Your task to perform on an android device: change keyboard looks Image 0: 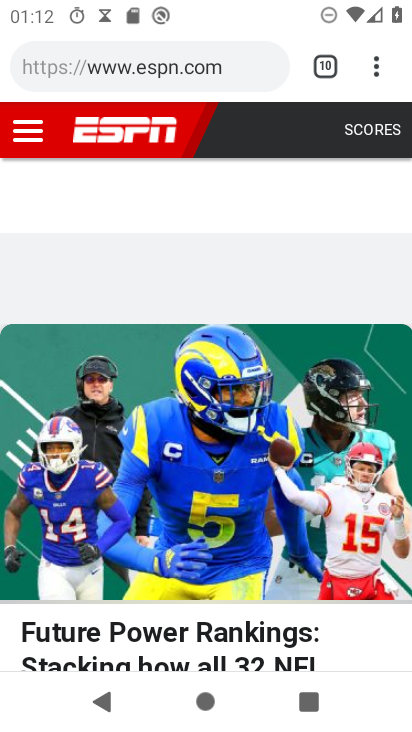
Step 0: press home button
Your task to perform on an android device: change keyboard looks Image 1: 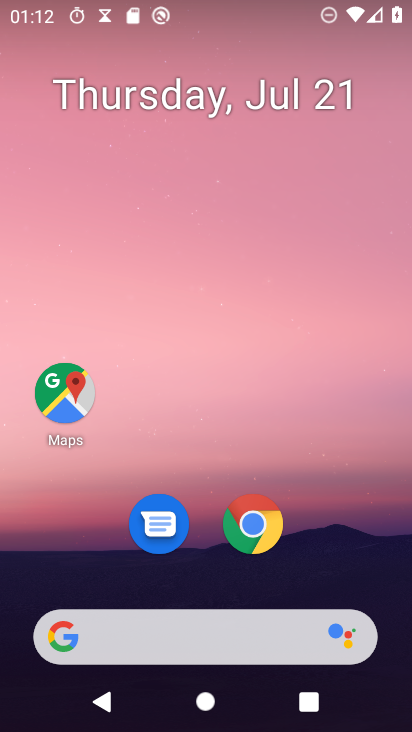
Step 1: drag from (263, 645) to (324, 315)
Your task to perform on an android device: change keyboard looks Image 2: 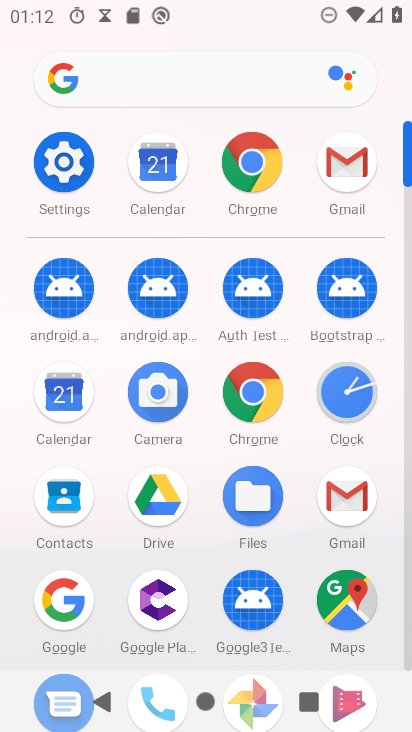
Step 2: click (63, 164)
Your task to perform on an android device: change keyboard looks Image 3: 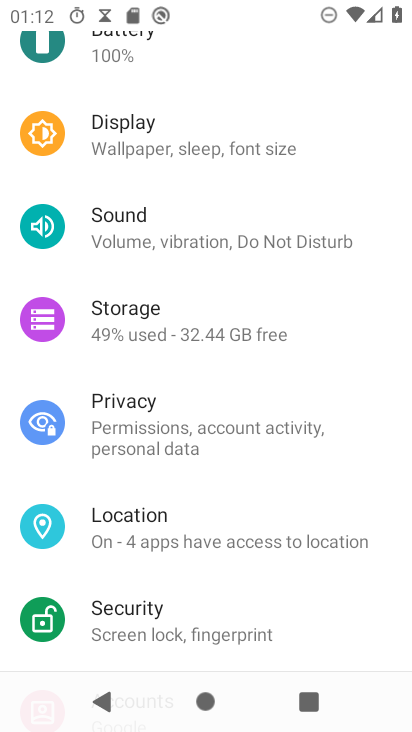
Step 3: drag from (146, 588) to (222, 218)
Your task to perform on an android device: change keyboard looks Image 4: 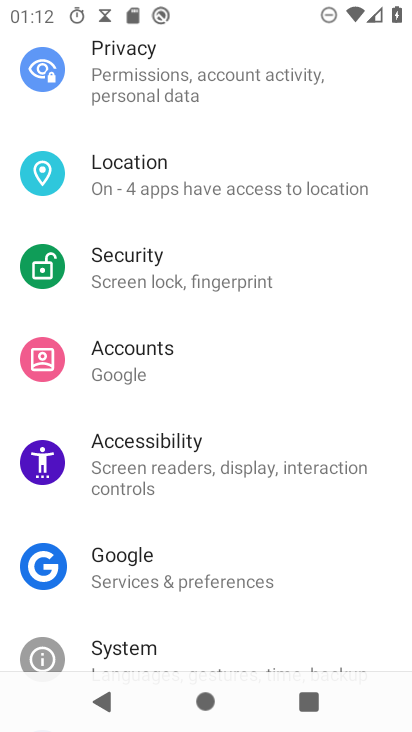
Step 4: drag from (197, 598) to (238, 155)
Your task to perform on an android device: change keyboard looks Image 5: 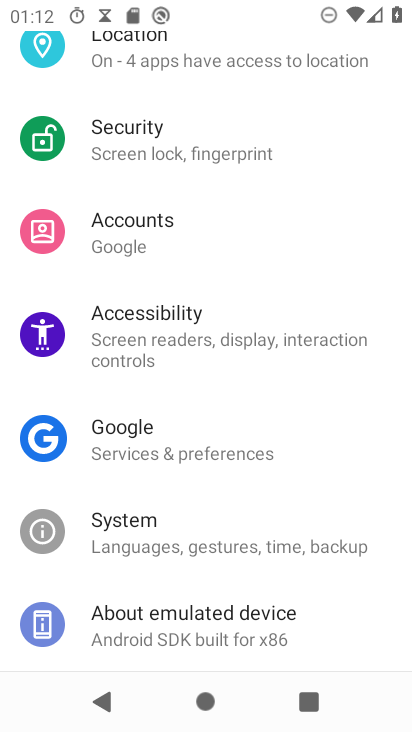
Step 5: click (145, 527)
Your task to perform on an android device: change keyboard looks Image 6: 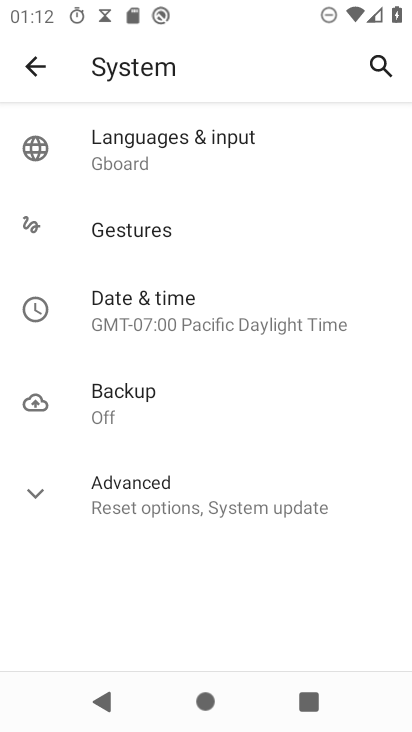
Step 6: click (143, 157)
Your task to perform on an android device: change keyboard looks Image 7: 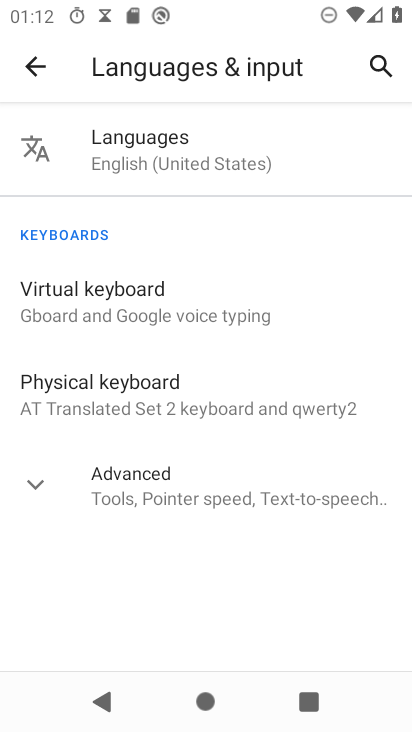
Step 7: click (98, 324)
Your task to perform on an android device: change keyboard looks Image 8: 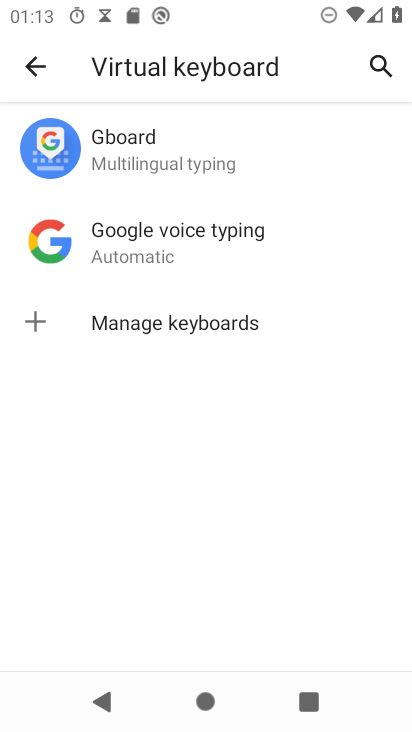
Step 8: click (143, 151)
Your task to perform on an android device: change keyboard looks Image 9: 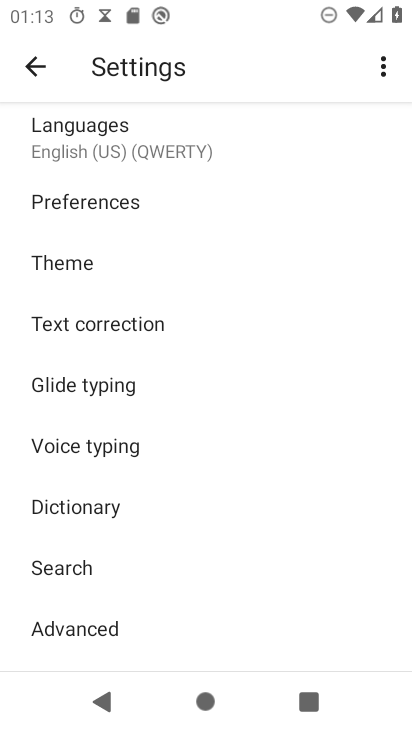
Step 9: click (51, 271)
Your task to perform on an android device: change keyboard looks Image 10: 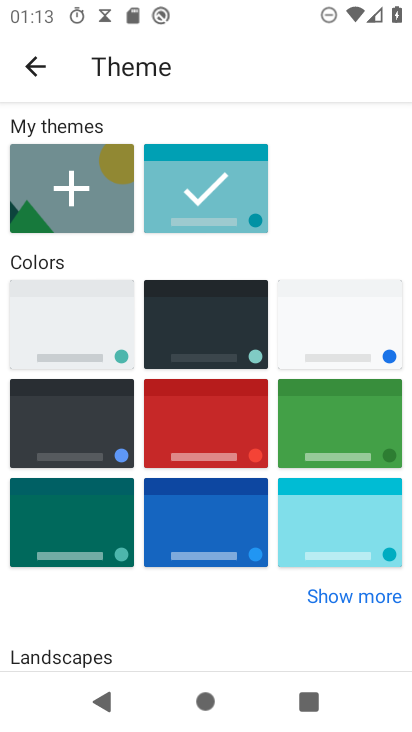
Step 10: click (81, 419)
Your task to perform on an android device: change keyboard looks Image 11: 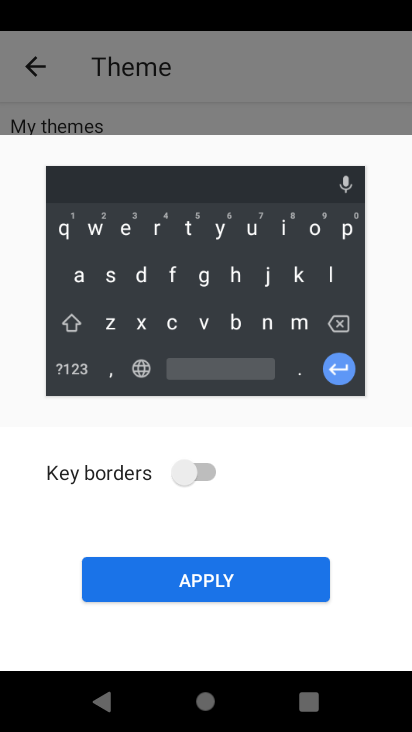
Step 11: click (219, 587)
Your task to perform on an android device: change keyboard looks Image 12: 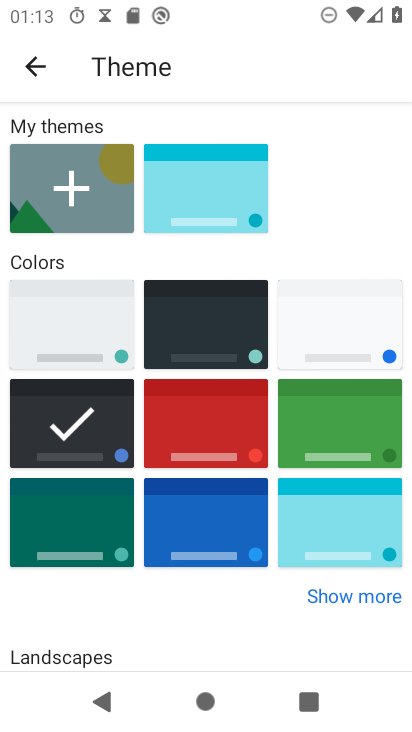
Step 12: task complete